Your task to perform on an android device: Open Youtube and go to the subscriptions tab Image 0: 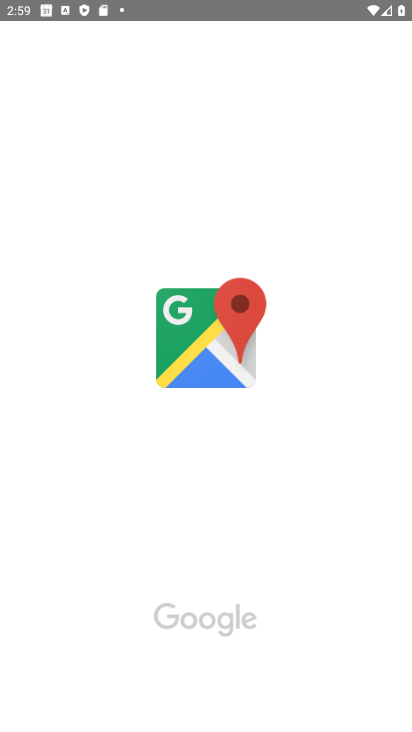
Step 0: drag from (367, 551) to (345, 81)
Your task to perform on an android device: Open Youtube and go to the subscriptions tab Image 1: 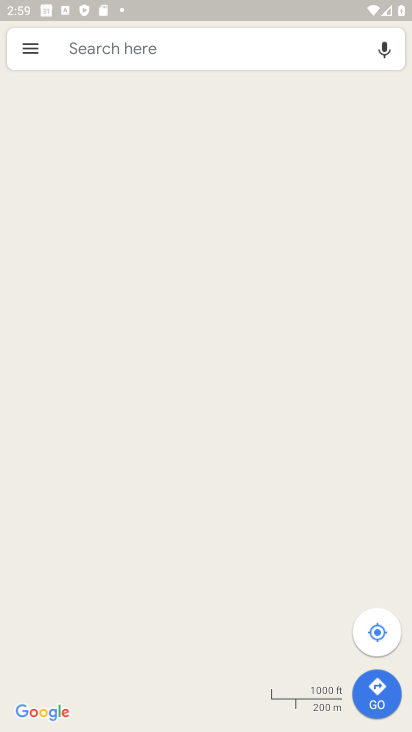
Step 1: press home button
Your task to perform on an android device: Open Youtube and go to the subscriptions tab Image 2: 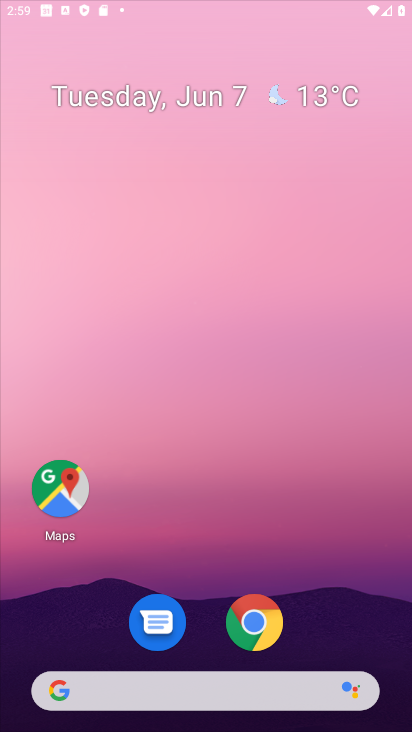
Step 2: press home button
Your task to perform on an android device: Open Youtube and go to the subscriptions tab Image 3: 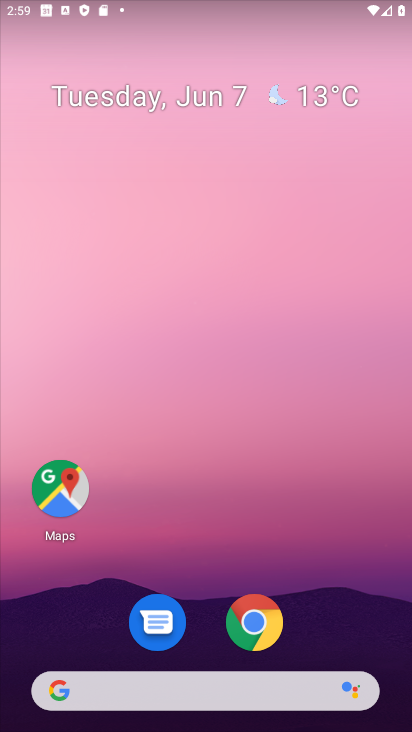
Step 3: drag from (360, 592) to (351, 148)
Your task to perform on an android device: Open Youtube and go to the subscriptions tab Image 4: 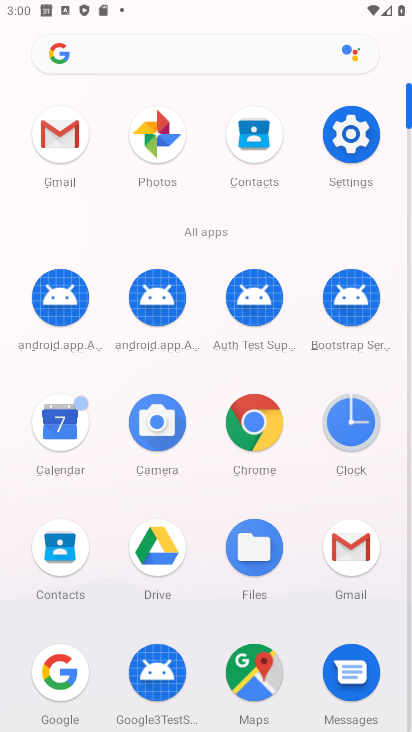
Step 4: click (406, 484)
Your task to perform on an android device: Open Youtube and go to the subscriptions tab Image 5: 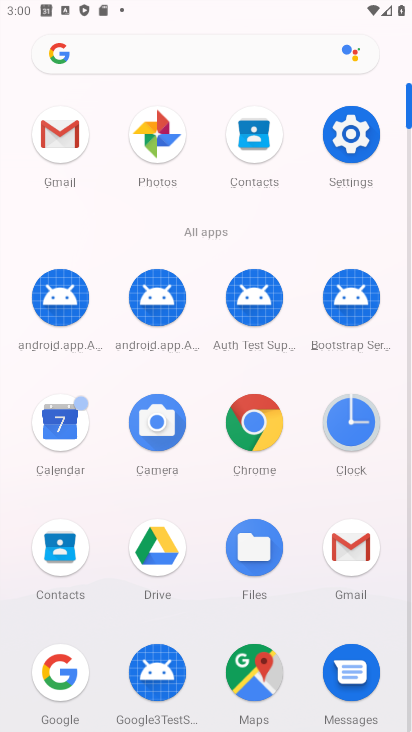
Step 5: click (406, 496)
Your task to perform on an android device: Open Youtube and go to the subscriptions tab Image 6: 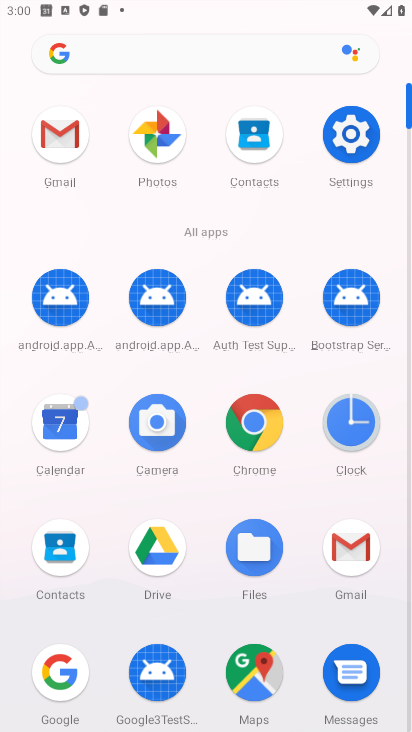
Step 6: click (406, 506)
Your task to perform on an android device: Open Youtube and go to the subscriptions tab Image 7: 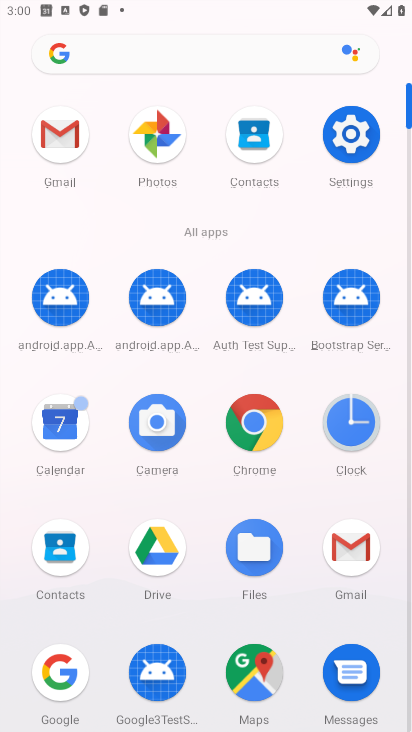
Step 7: drag from (395, 486) to (402, 430)
Your task to perform on an android device: Open Youtube and go to the subscriptions tab Image 8: 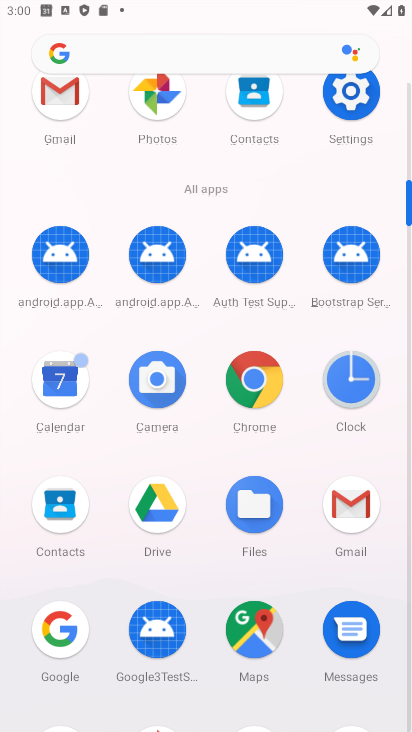
Step 8: click (406, 584)
Your task to perform on an android device: Open Youtube and go to the subscriptions tab Image 9: 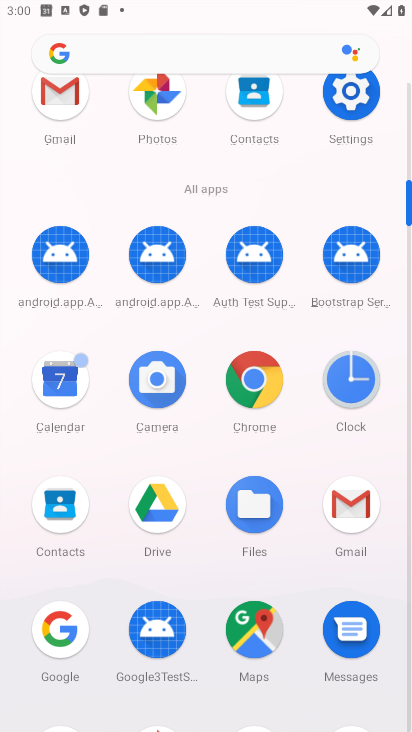
Step 9: click (406, 584)
Your task to perform on an android device: Open Youtube and go to the subscriptions tab Image 10: 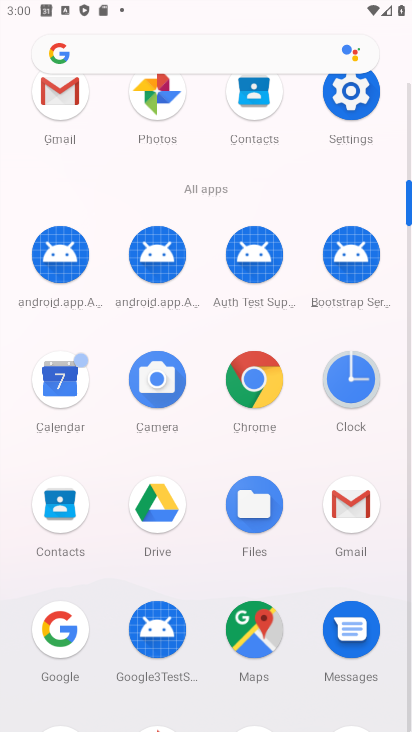
Step 10: click (406, 584)
Your task to perform on an android device: Open Youtube and go to the subscriptions tab Image 11: 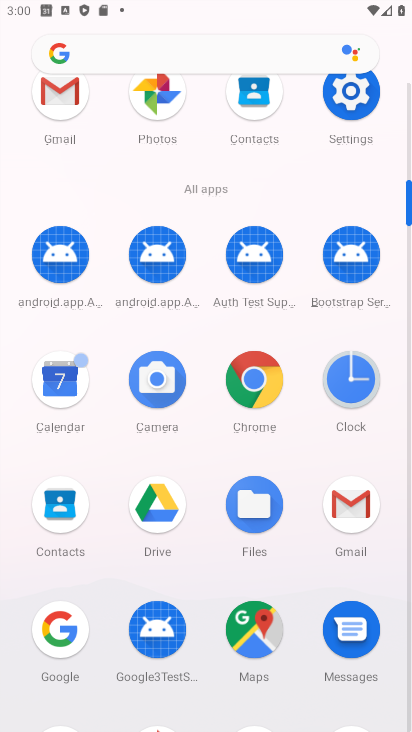
Step 11: drag from (380, 680) to (384, 319)
Your task to perform on an android device: Open Youtube and go to the subscriptions tab Image 12: 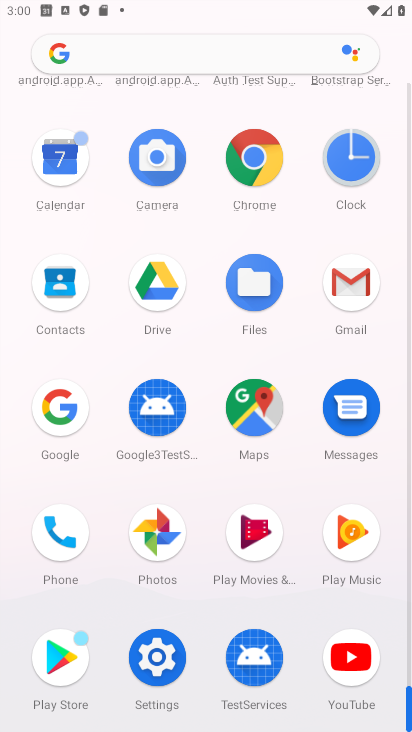
Step 12: click (352, 658)
Your task to perform on an android device: Open Youtube and go to the subscriptions tab Image 13: 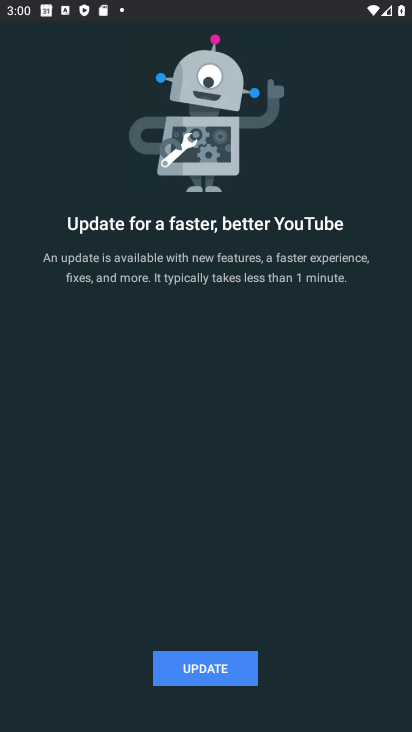
Step 13: click (243, 666)
Your task to perform on an android device: Open Youtube and go to the subscriptions tab Image 14: 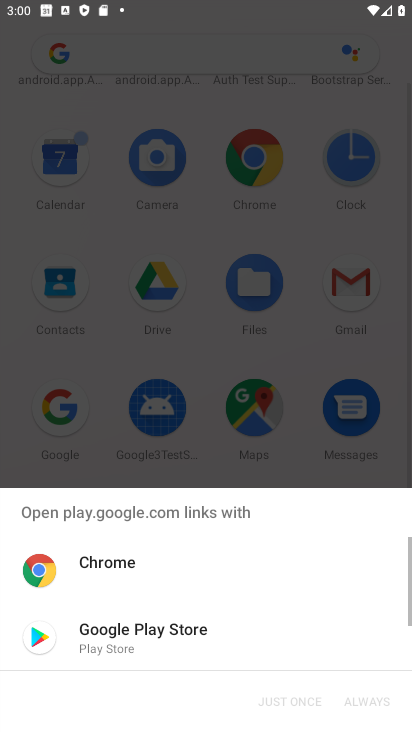
Step 14: click (191, 634)
Your task to perform on an android device: Open Youtube and go to the subscriptions tab Image 15: 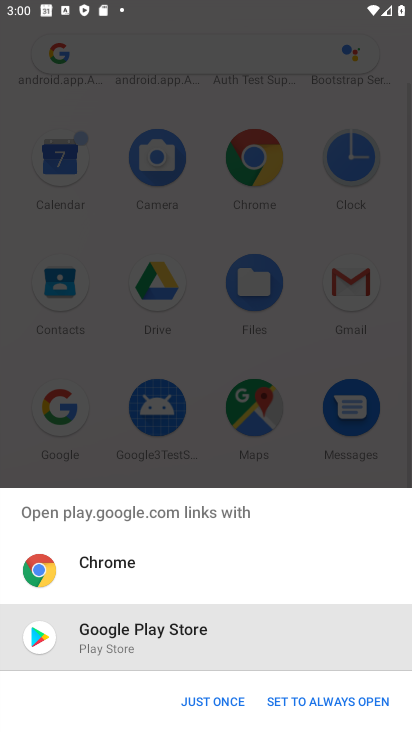
Step 15: click (215, 702)
Your task to perform on an android device: Open Youtube and go to the subscriptions tab Image 16: 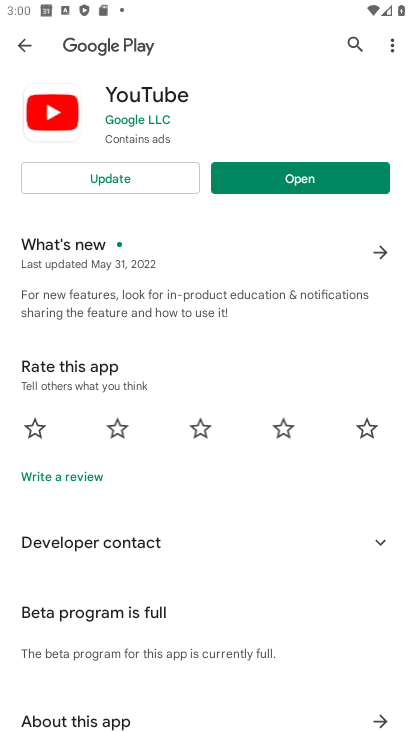
Step 16: click (93, 172)
Your task to perform on an android device: Open Youtube and go to the subscriptions tab Image 17: 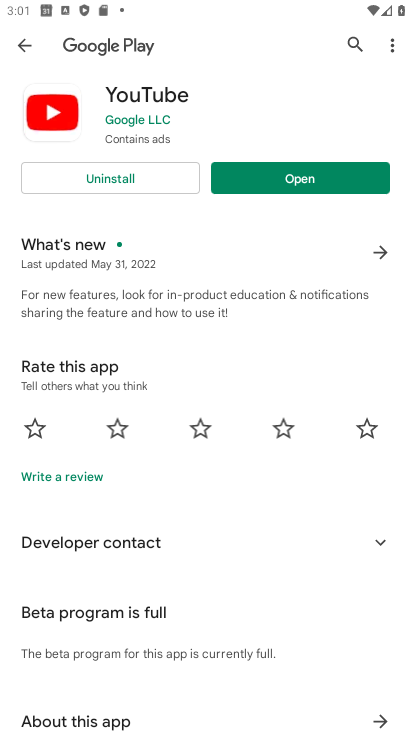
Step 17: click (381, 170)
Your task to perform on an android device: Open Youtube and go to the subscriptions tab Image 18: 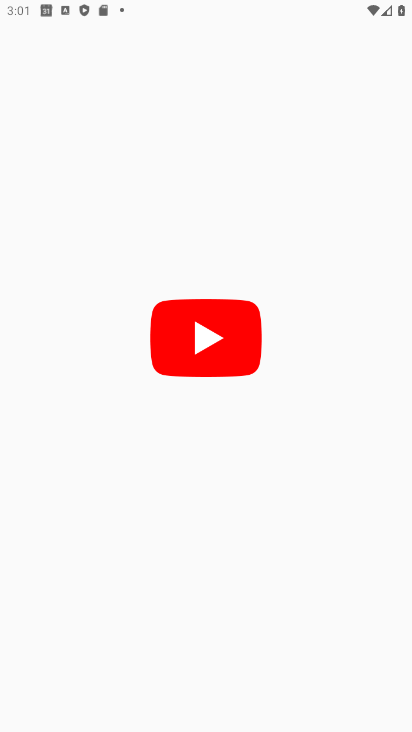
Step 18: click (343, 174)
Your task to perform on an android device: Open Youtube and go to the subscriptions tab Image 19: 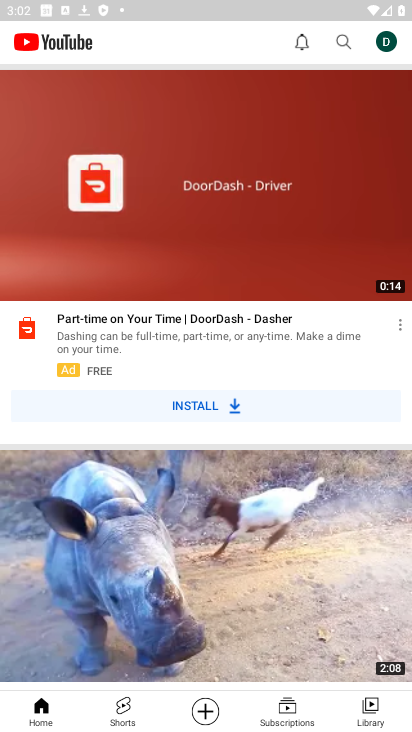
Step 19: click (290, 701)
Your task to perform on an android device: Open Youtube and go to the subscriptions tab Image 20: 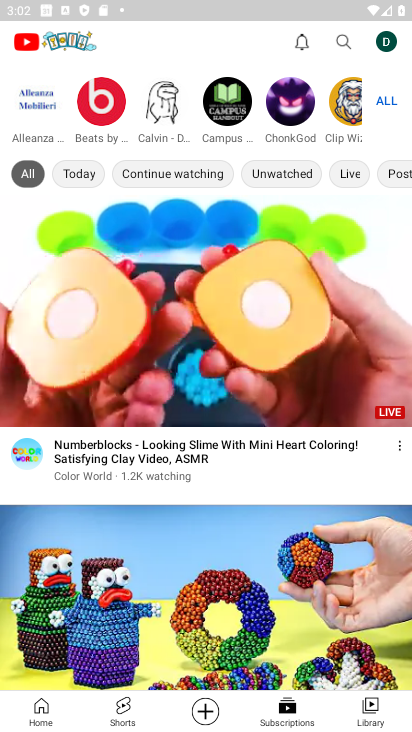
Step 20: task complete